Your task to perform on an android device: turn on priority inbox in the gmail app Image 0: 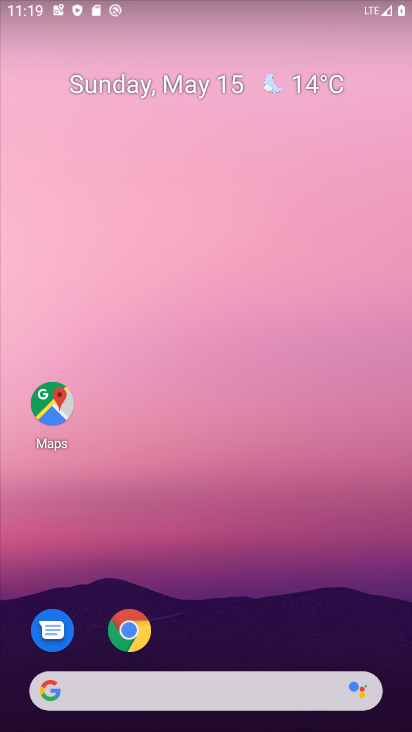
Step 0: press home button
Your task to perform on an android device: turn on priority inbox in the gmail app Image 1: 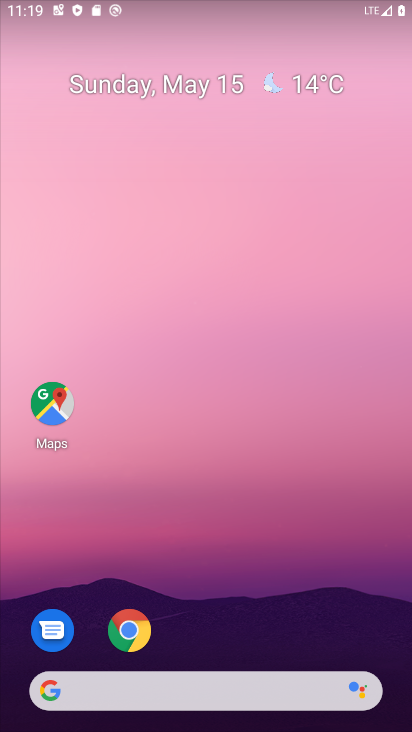
Step 1: drag from (135, 476) to (327, 167)
Your task to perform on an android device: turn on priority inbox in the gmail app Image 2: 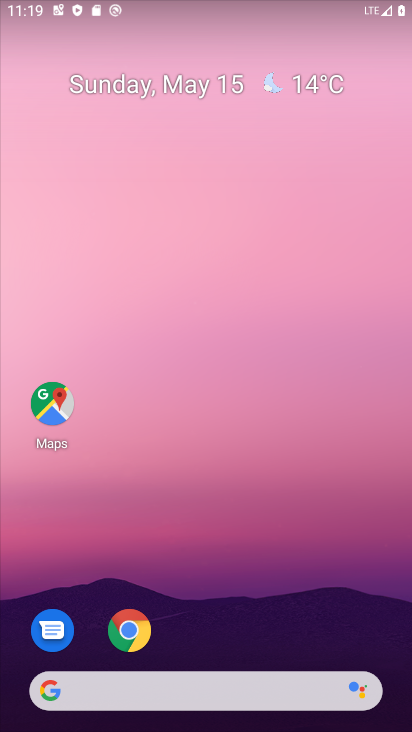
Step 2: drag from (0, 728) to (202, 226)
Your task to perform on an android device: turn on priority inbox in the gmail app Image 3: 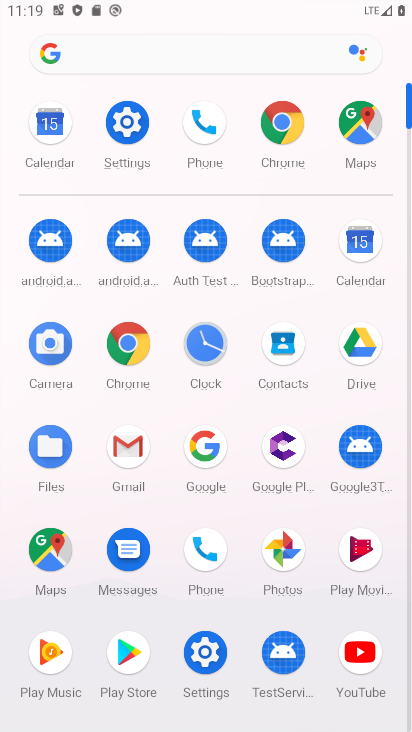
Step 3: click (208, 650)
Your task to perform on an android device: turn on priority inbox in the gmail app Image 4: 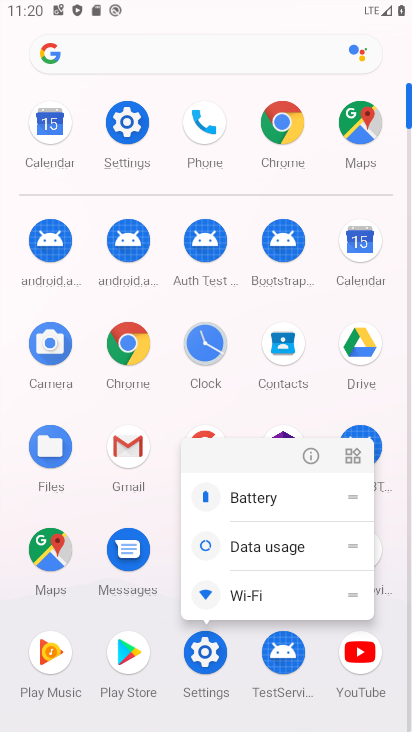
Step 4: click (120, 443)
Your task to perform on an android device: turn on priority inbox in the gmail app Image 5: 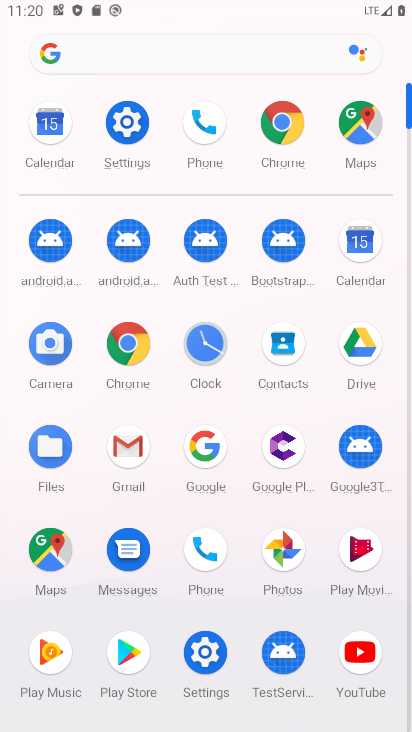
Step 5: click (116, 446)
Your task to perform on an android device: turn on priority inbox in the gmail app Image 6: 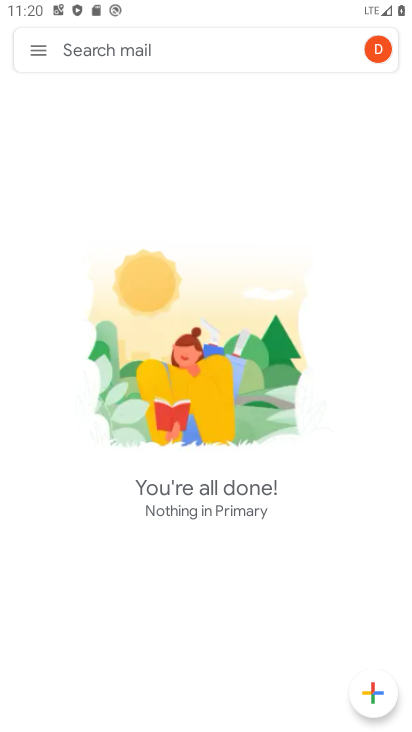
Step 6: click (35, 52)
Your task to perform on an android device: turn on priority inbox in the gmail app Image 7: 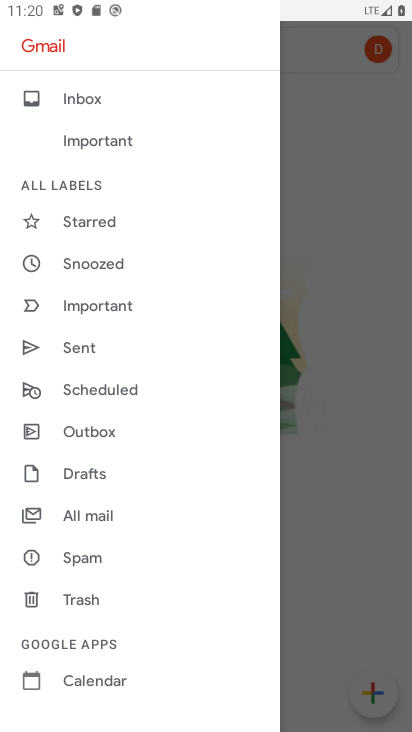
Step 7: drag from (57, 690) to (135, 190)
Your task to perform on an android device: turn on priority inbox in the gmail app Image 8: 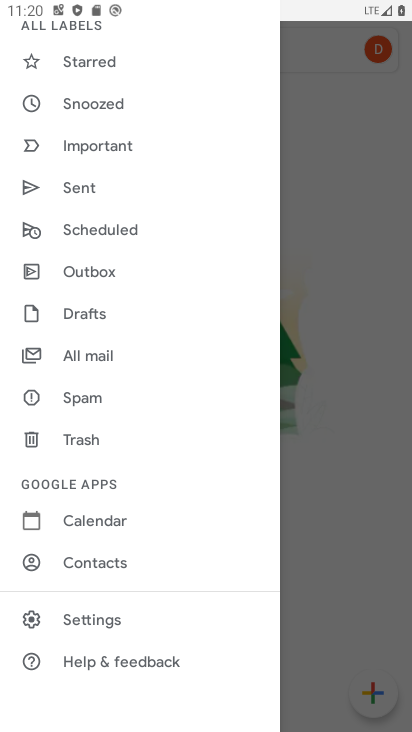
Step 8: click (97, 621)
Your task to perform on an android device: turn on priority inbox in the gmail app Image 9: 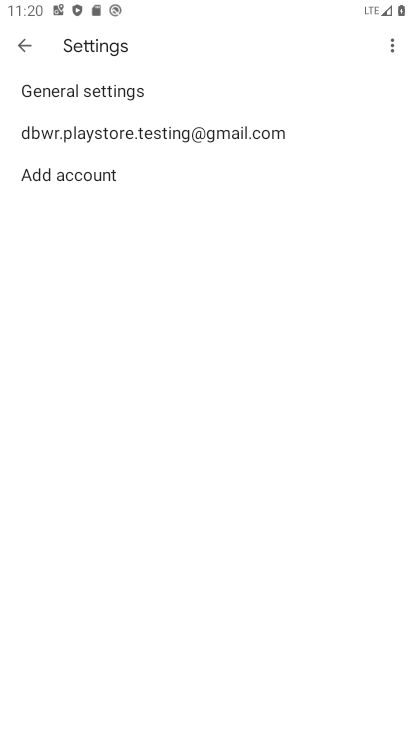
Step 9: click (103, 138)
Your task to perform on an android device: turn on priority inbox in the gmail app Image 10: 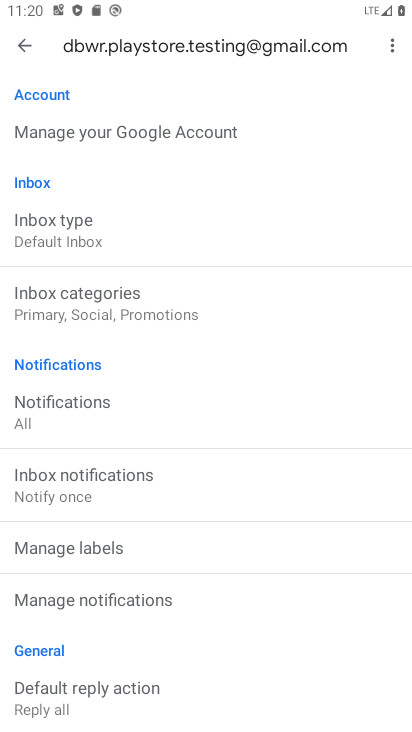
Step 10: drag from (76, 705) to (218, 138)
Your task to perform on an android device: turn on priority inbox in the gmail app Image 11: 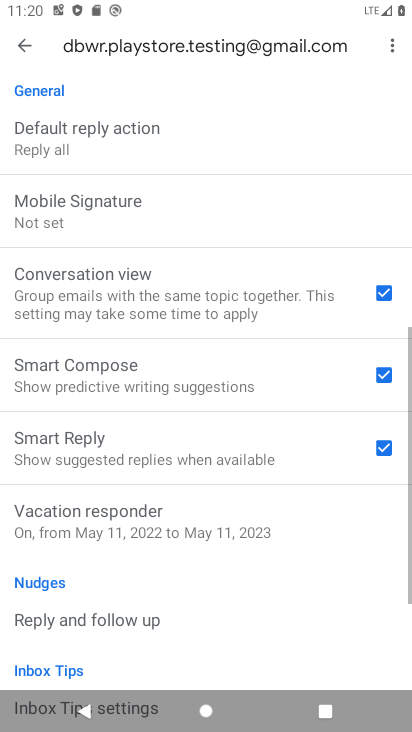
Step 11: drag from (127, 114) to (109, 715)
Your task to perform on an android device: turn on priority inbox in the gmail app Image 12: 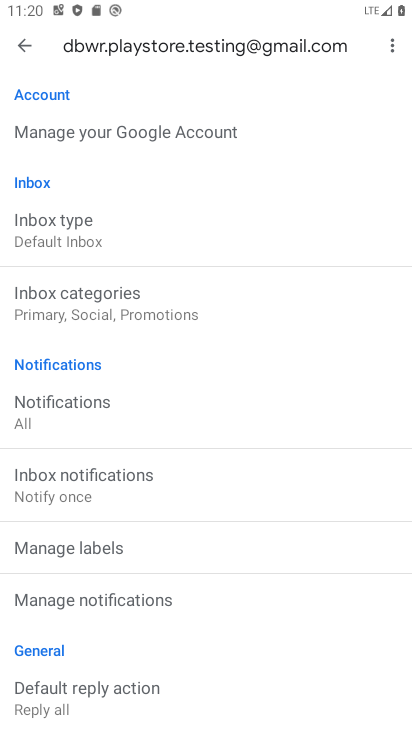
Step 12: click (115, 230)
Your task to perform on an android device: turn on priority inbox in the gmail app Image 13: 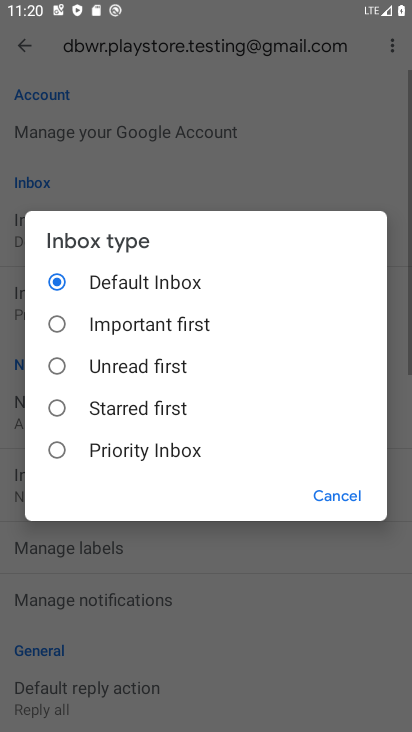
Step 13: click (126, 460)
Your task to perform on an android device: turn on priority inbox in the gmail app Image 14: 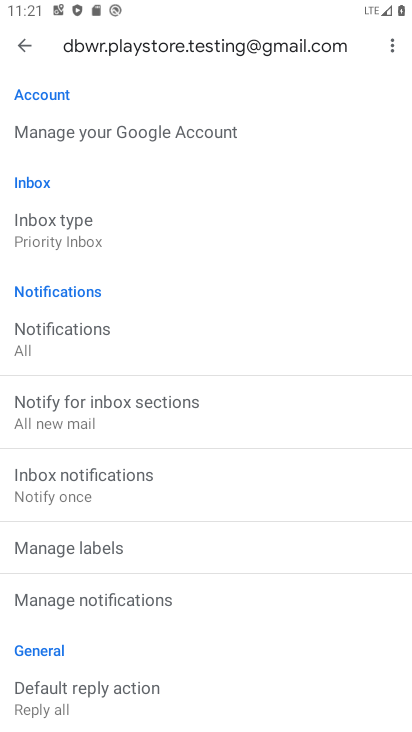
Step 14: task complete